Your task to perform on an android device: install app "Gboard" Image 0: 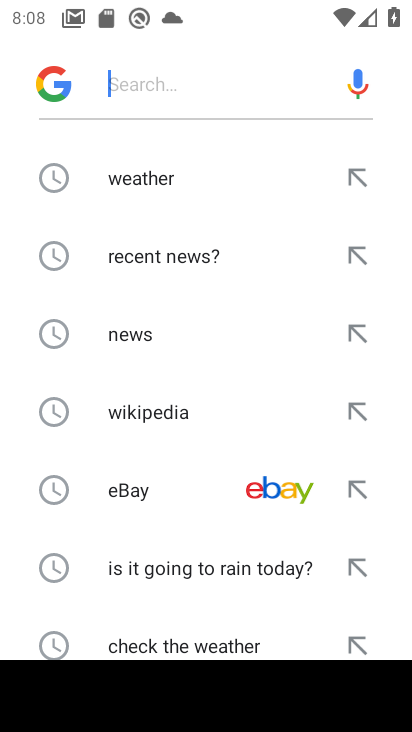
Step 0: press home button
Your task to perform on an android device: install app "Gboard" Image 1: 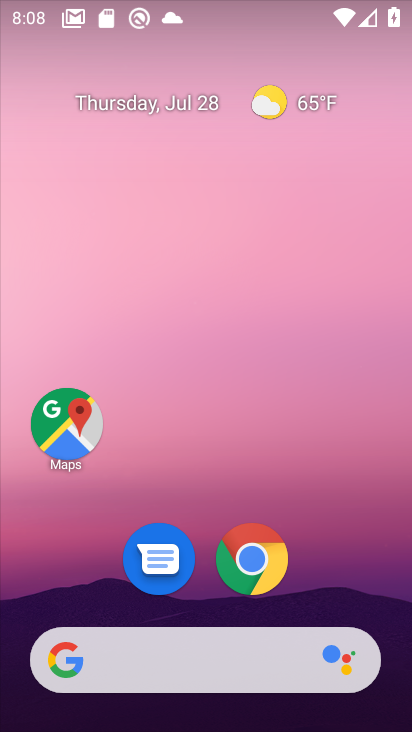
Step 1: drag from (206, 608) to (180, 8)
Your task to perform on an android device: install app "Gboard" Image 2: 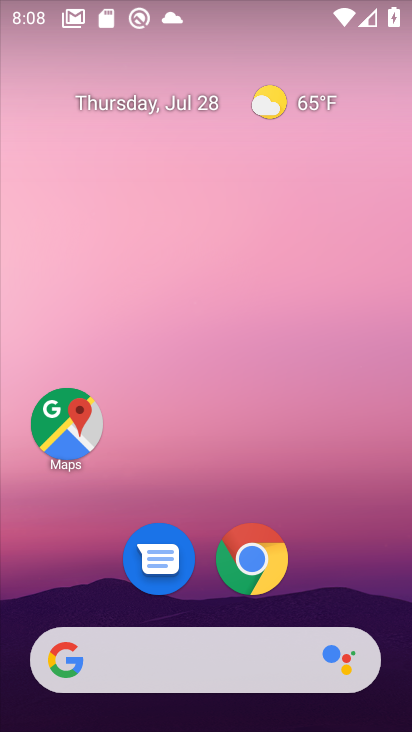
Step 2: drag from (202, 609) to (189, 0)
Your task to perform on an android device: install app "Gboard" Image 3: 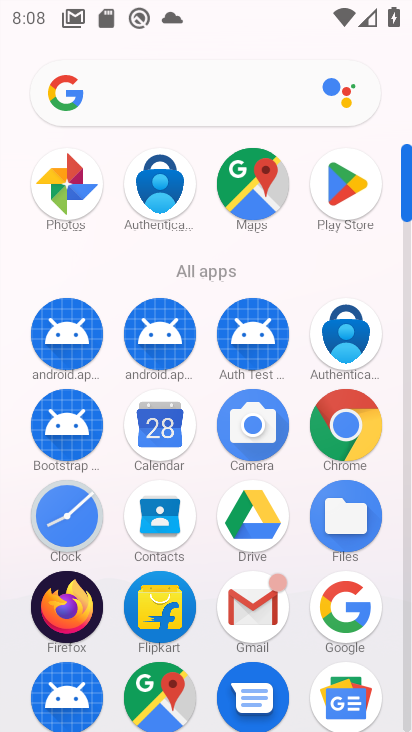
Step 3: click (339, 206)
Your task to perform on an android device: install app "Gboard" Image 4: 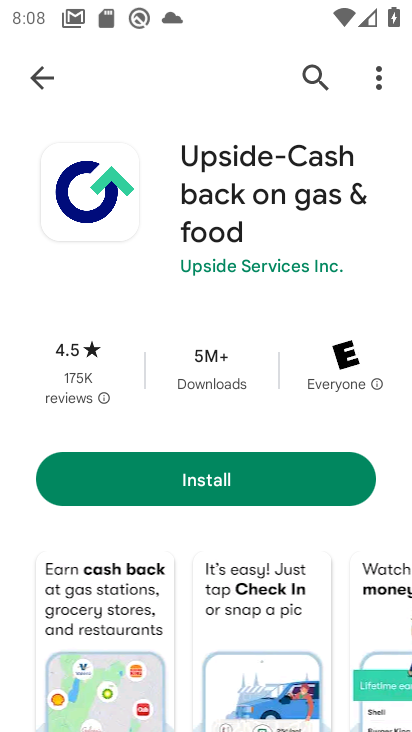
Step 4: click (48, 80)
Your task to perform on an android device: install app "Gboard" Image 5: 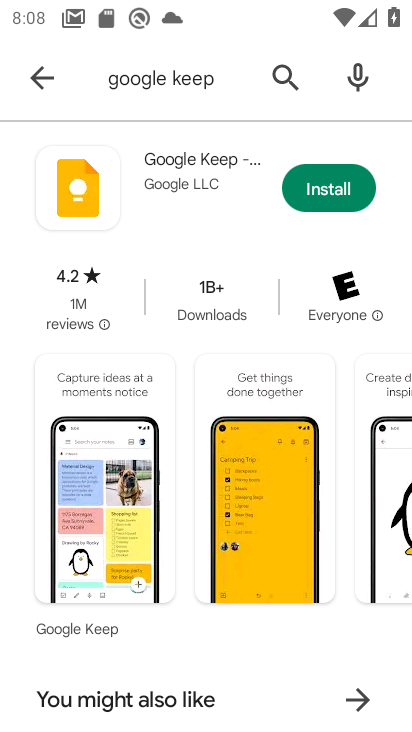
Step 5: click (196, 83)
Your task to perform on an android device: install app "Gboard" Image 6: 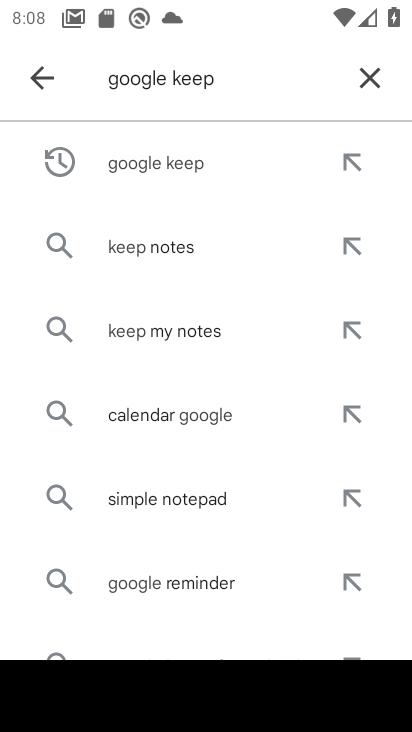
Step 6: click (375, 73)
Your task to perform on an android device: install app "Gboard" Image 7: 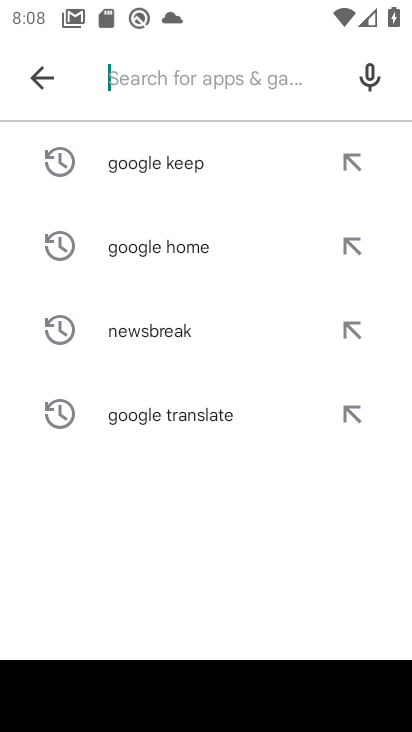
Step 7: type "Gboard"
Your task to perform on an android device: install app "Gboard" Image 8: 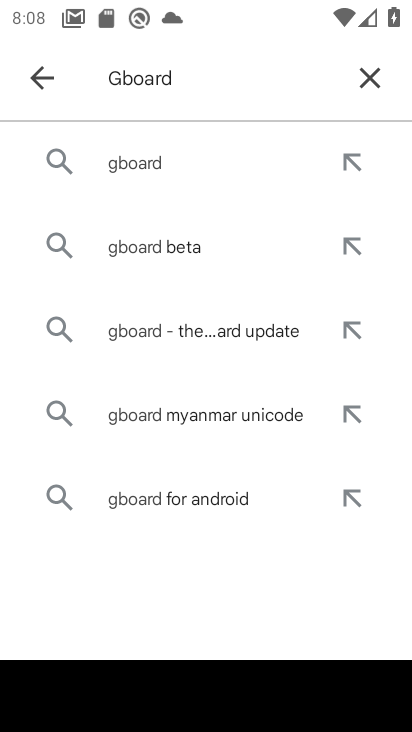
Step 8: click (177, 179)
Your task to perform on an android device: install app "Gboard" Image 9: 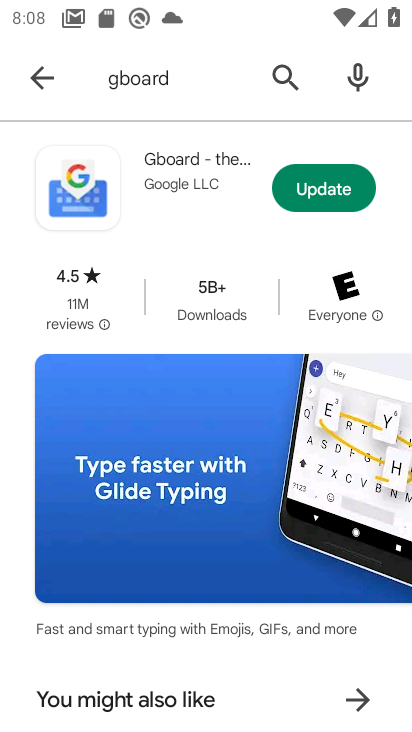
Step 9: click (328, 194)
Your task to perform on an android device: install app "Gboard" Image 10: 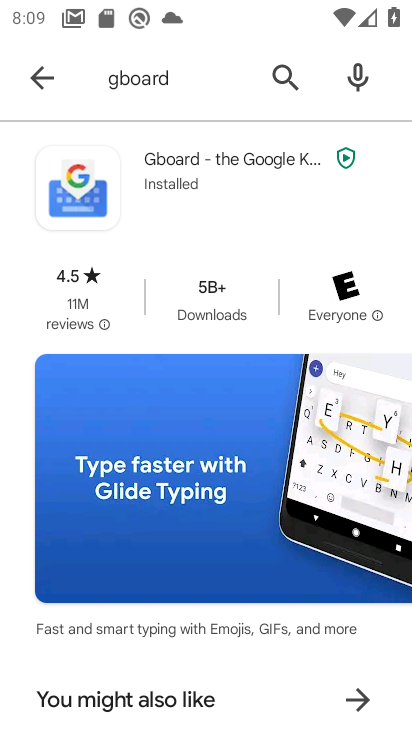
Step 10: task complete